Your task to perform on an android device: add a label to a message in the gmail app Image 0: 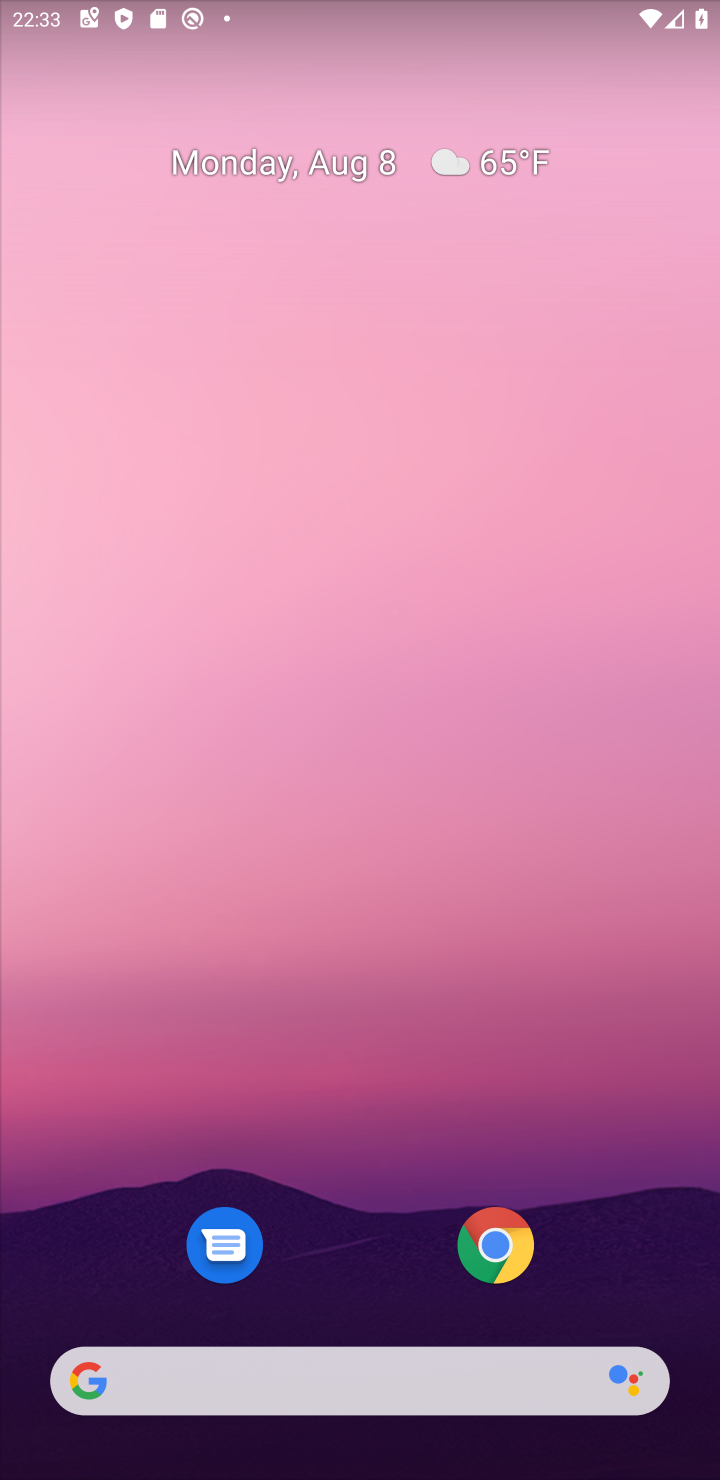
Step 0: drag from (354, 1090) to (243, 180)
Your task to perform on an android device: add a label to a message in the gmail app Image 1: 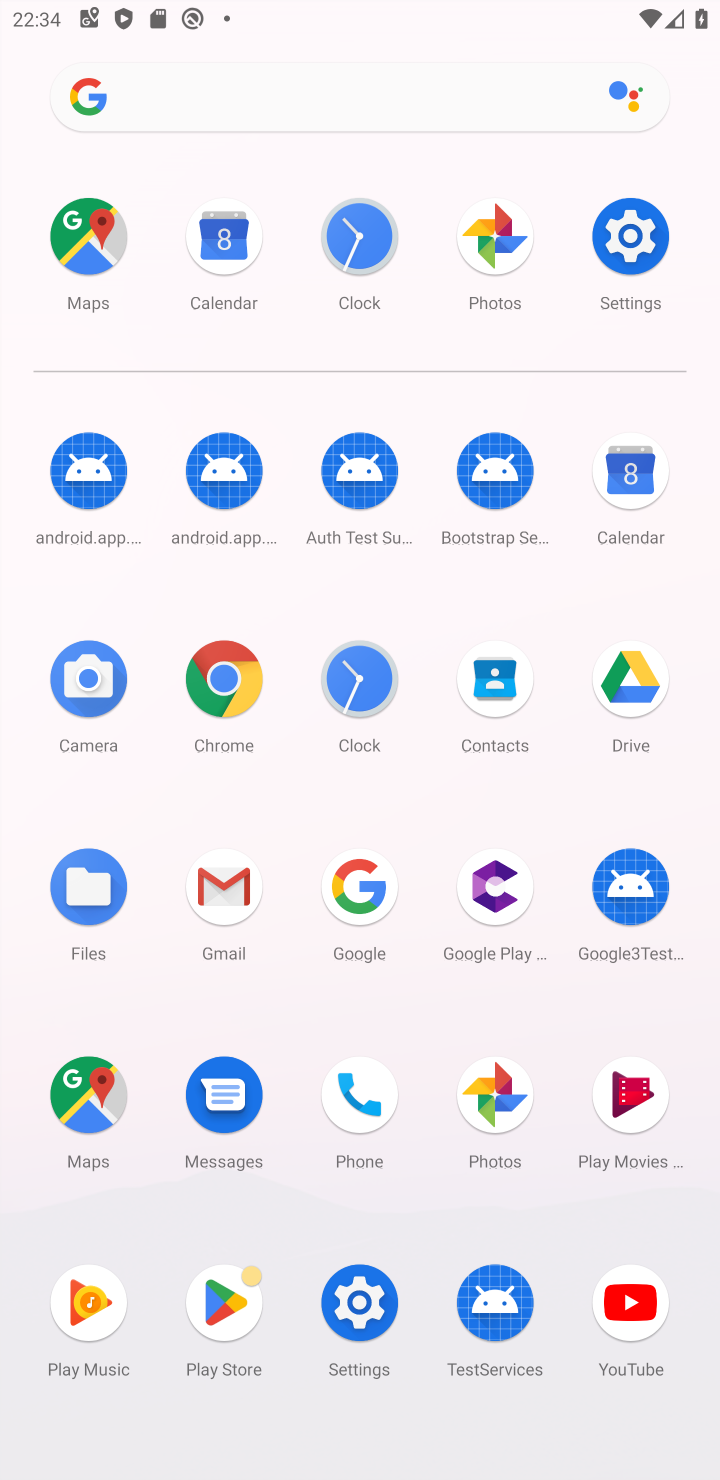
Step 1: click (220, 896)
Your task to perform on an android device: add a label to a message in the gmail app Image 2: 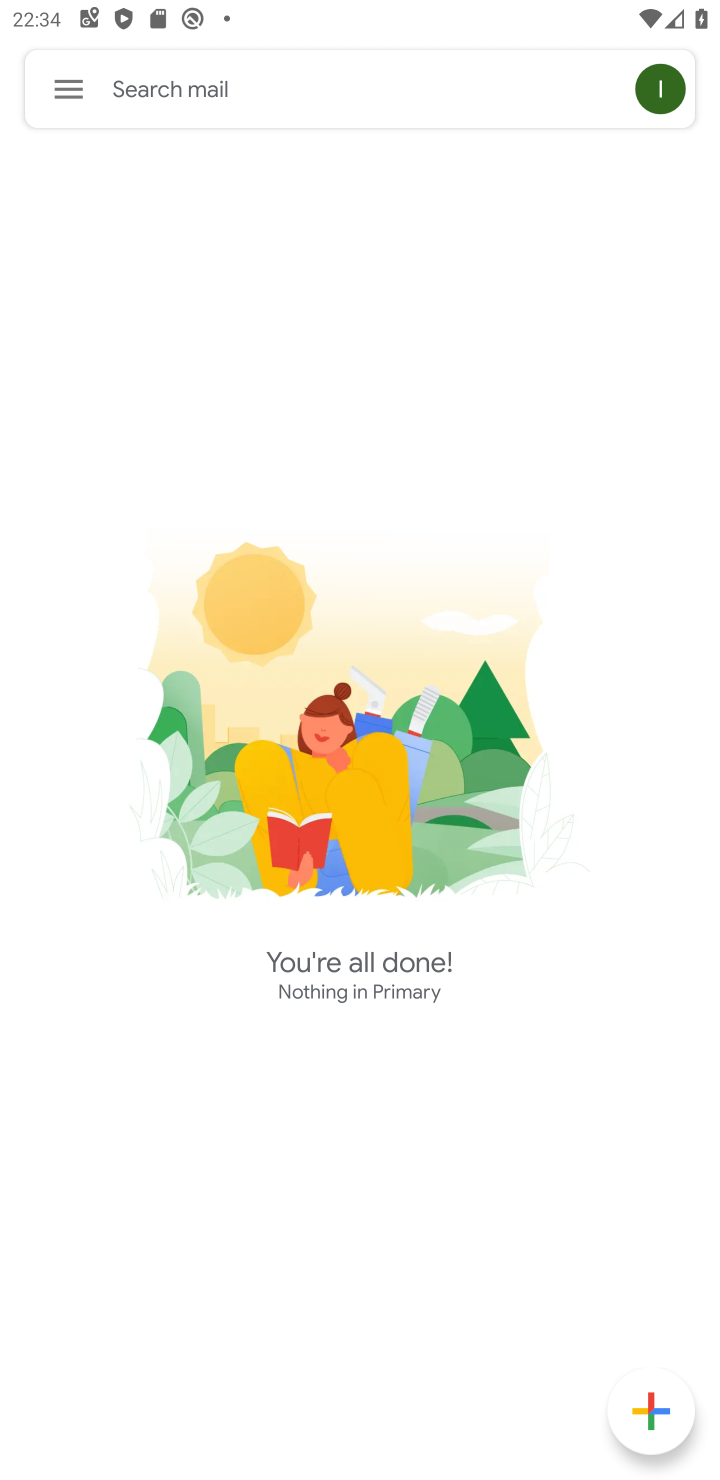
Step 2: click (66, 82)
Your task to perform on an android device: add a label to a message in the gmail app Image 3: 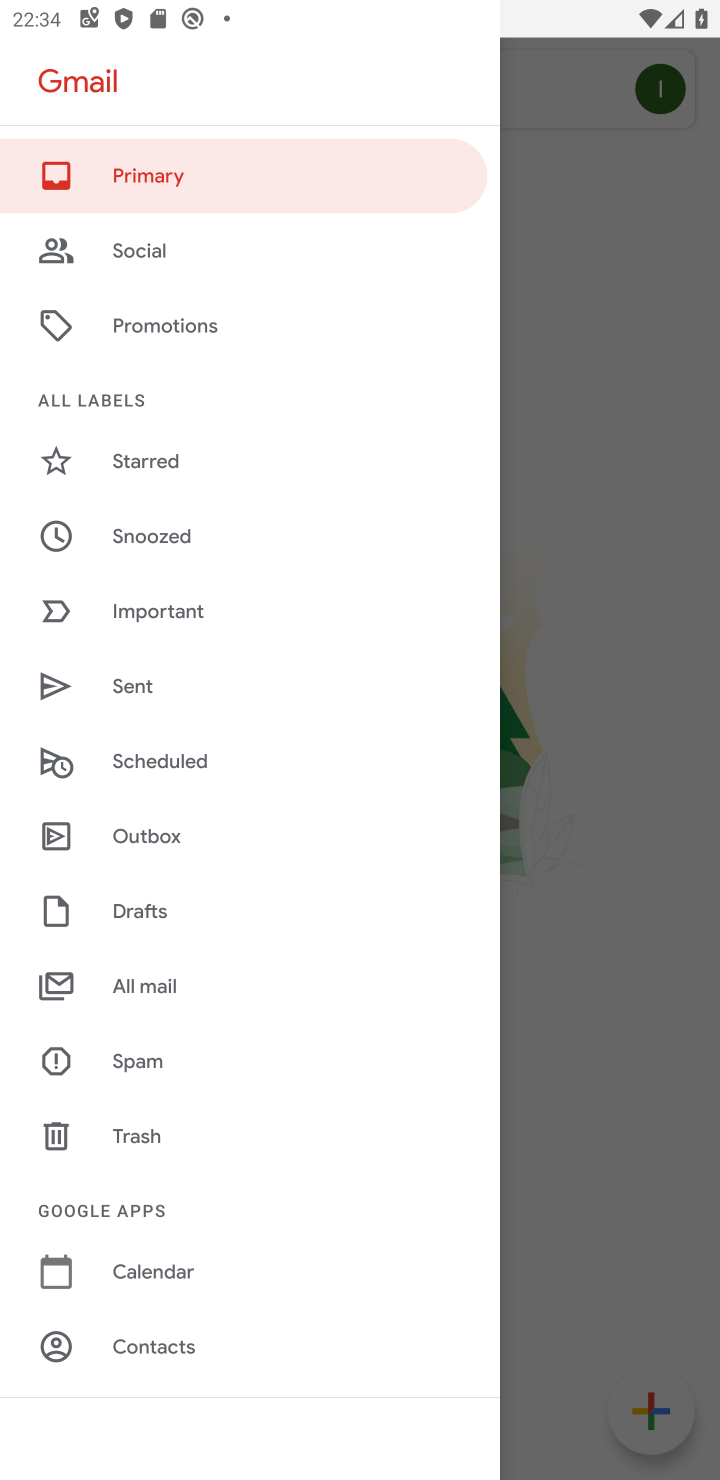
Step 3: click (153, 968)
Your task to perform on an android device: add a label to a message in the gmail app Image 4: 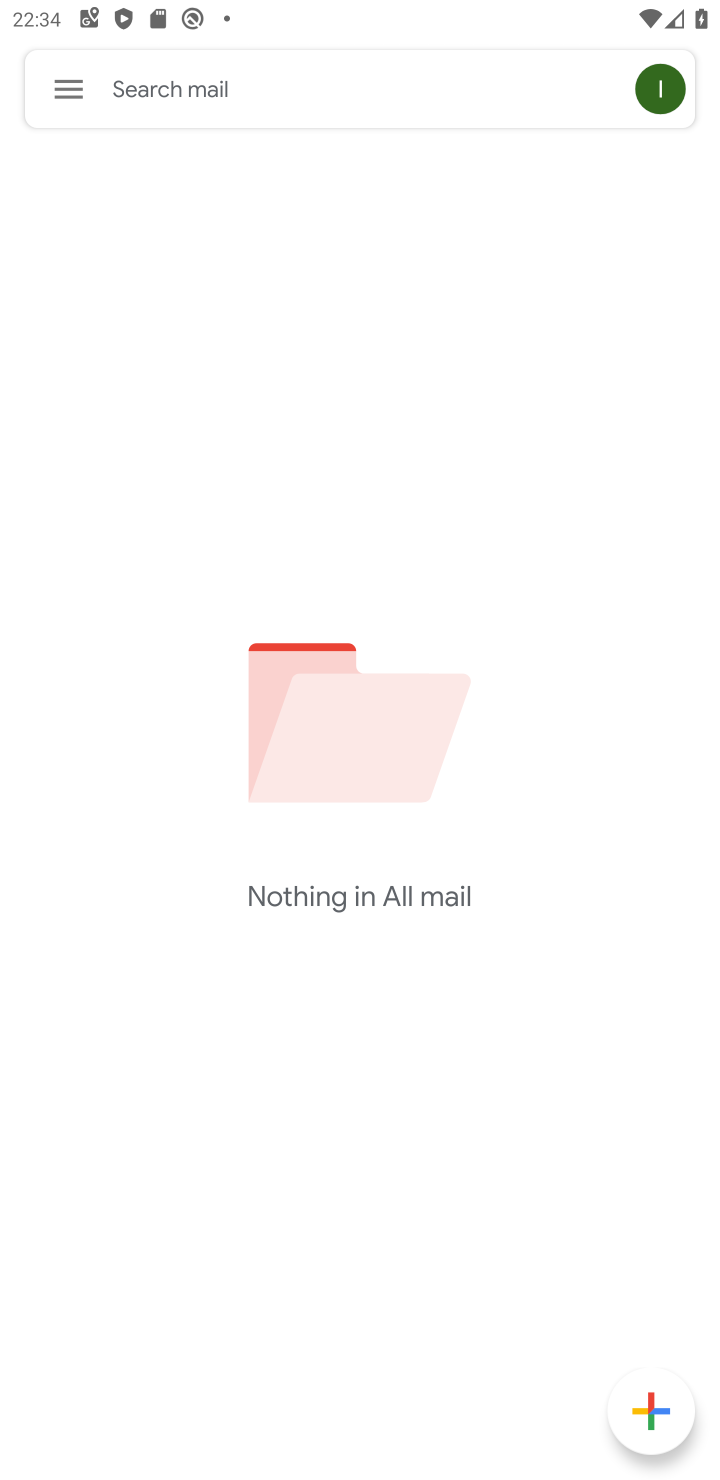
Step 4: task complete